Your task to perform on an android device: Open sound settings Image 0: 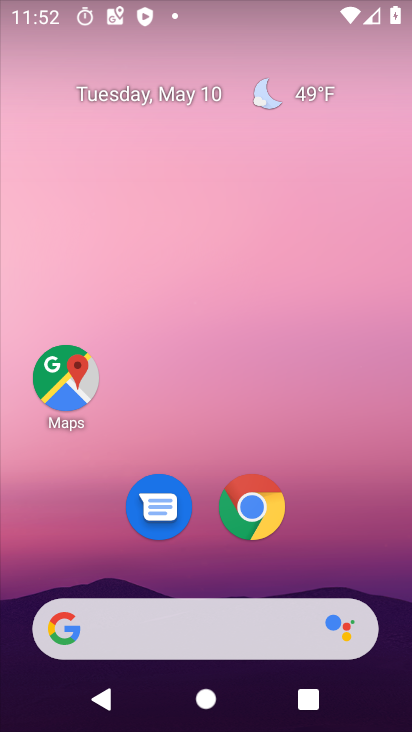
Step 0: drag from (212, 552) to (220, 56)
Your task to perform on an android device: Open sound settings Image 1: 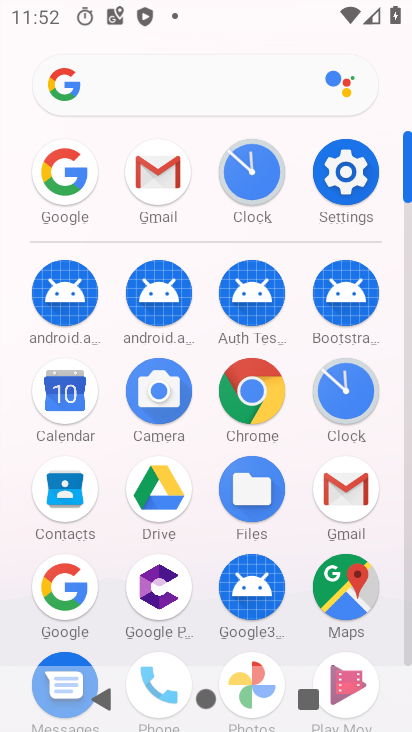
Step 1: click (347, 168)
Your task to perform on an android device: Open sound settings Image 2: 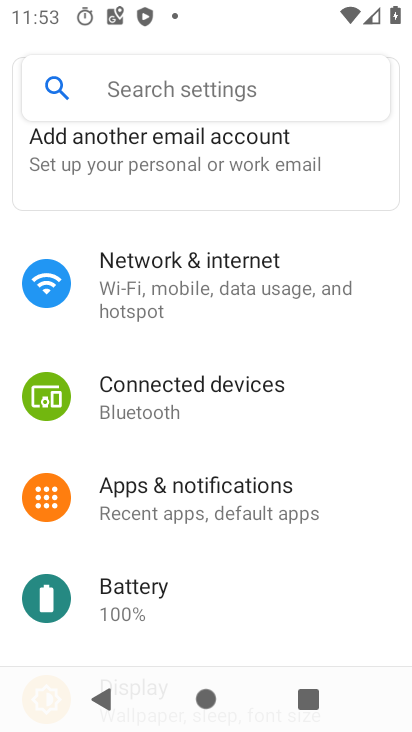
Step 2: drag from (217, 513) to (217, 76)
Your task to perform on an android device: Open sound settings Image 3: 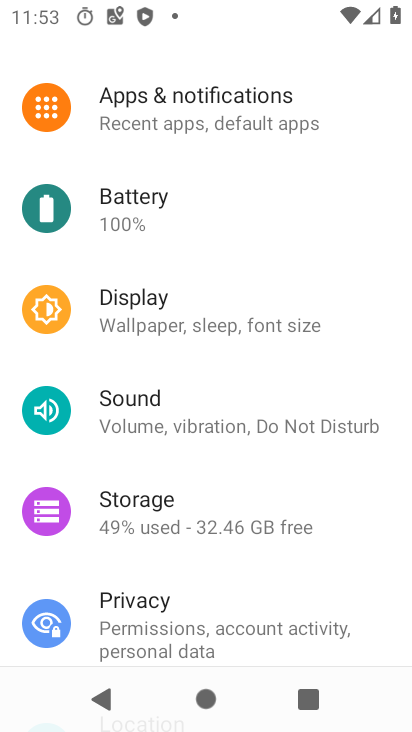
Step 3: click (176, 422)
Your task to perform on an android device: Open sound settings Image 4: 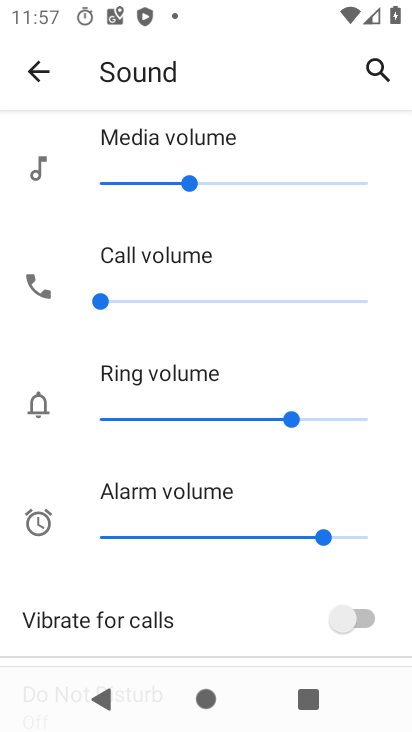
Step 4: task complete